Your task to perform on an android device: Go to display settings Image 0: 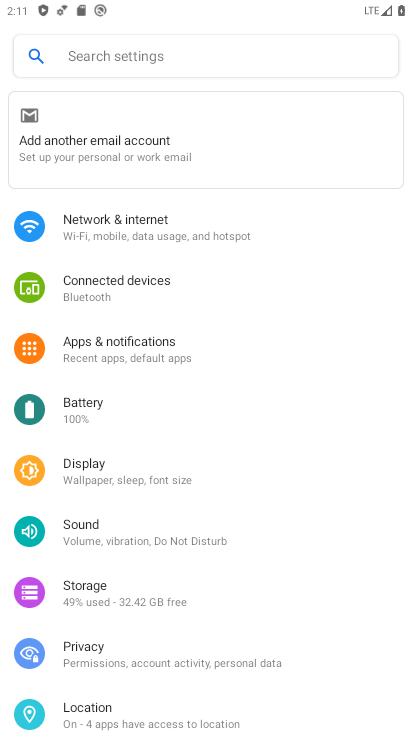
Step 0: click (151, 483)
Your task to perform on an android device: Go to display settings Image 1: 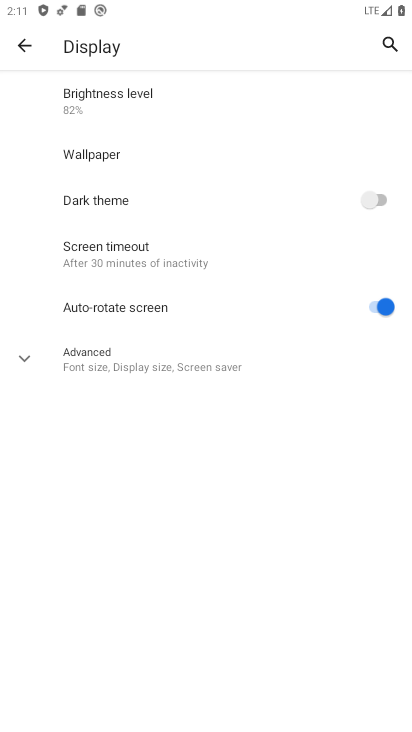
Step 1: task complete